Your task to perform on an android device: turn off javascript in the chrome app Image 0: 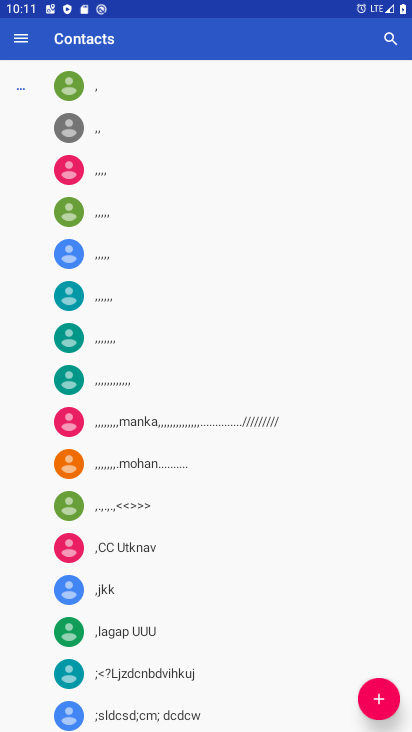
Step 0: press back button
Your task to perform on an android device: turn off javascript in the chrome app Image 1: 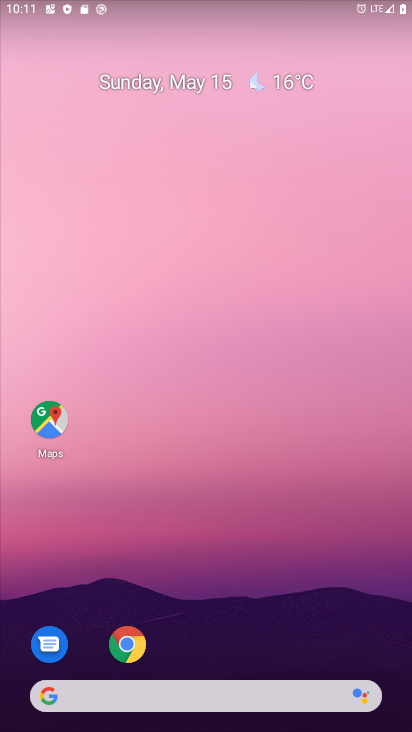
Step 1: click (113, 647)
Your task to perform on an android device: turn off javascript in the chrome app Image 2: 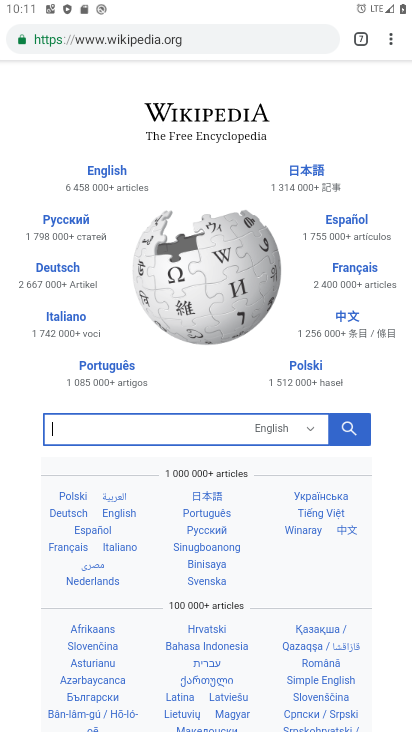
Step 2: click (390, 31)
Your task to perform on an android device: turn off javascript in the chrome app Image 3: 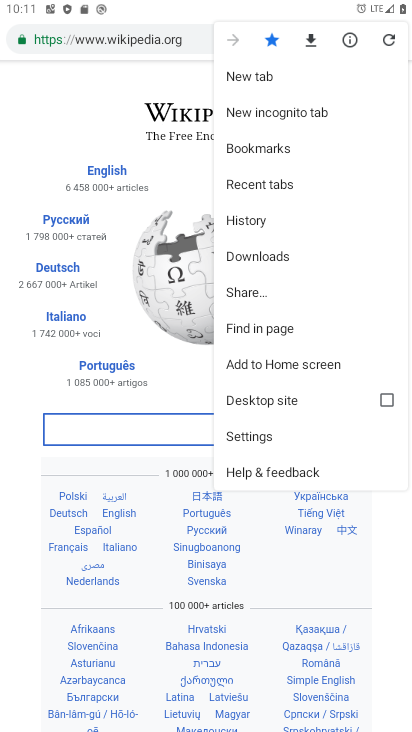
Step 3: click (249, 439)
Your task to perform on an android device: turn off javascript in the chrome app Image 4: 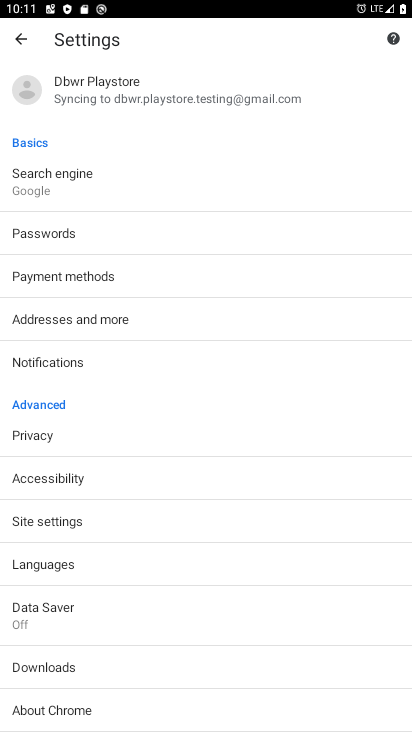
Step 4: click (71, 521)
Your task to perform on an android device: turn off javascript in the chrome app Image 5: 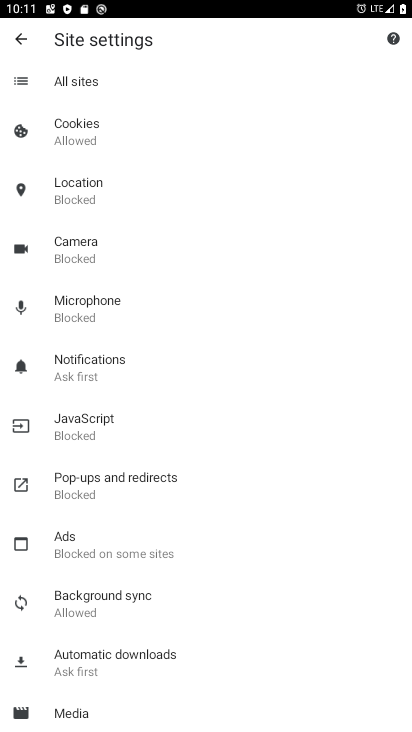
Step 5: click (91, 424)
Your task to perform on an android device: turn off javascript in the chrome app Image 6: 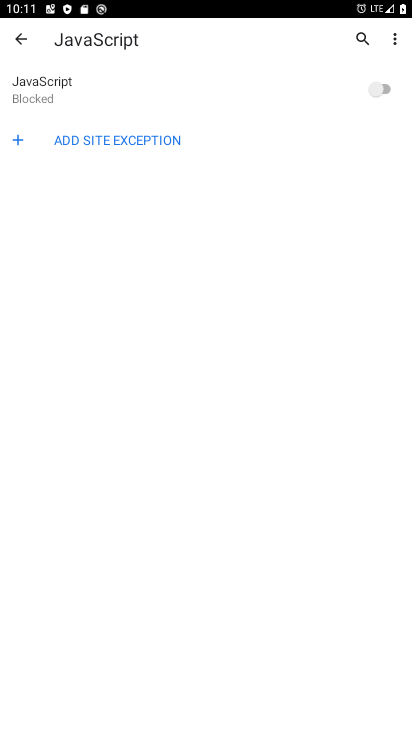
Step 6: task complete